Your task to perform on an android device: Open Android settings Image 0: 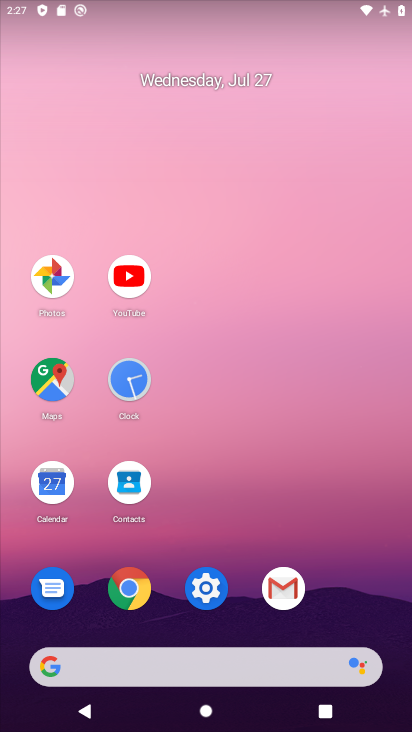
Step 0: click (200, 593)
Your task to perform on an android device: Open Android settings Image 1: 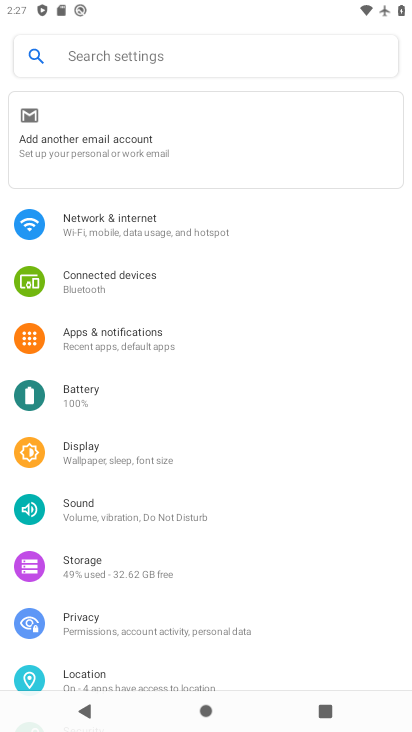
Step 1: drag from (281, 623) to (283, 146)
Your task to perform on an android device: Open Android settings Image 2: 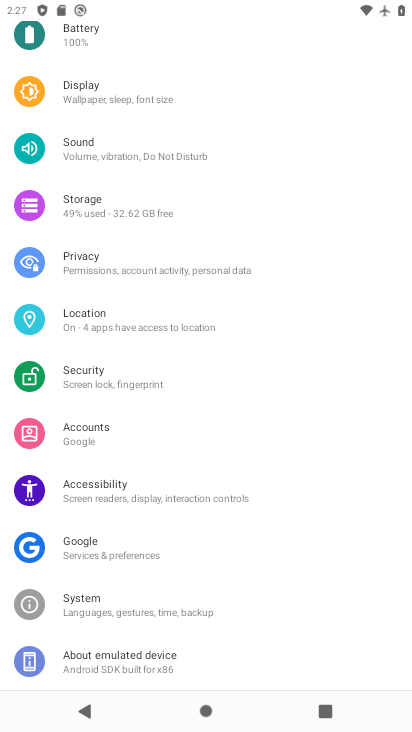
Step 2: click (131, 660)
Your task to perform on an android device: Open Android settings Image 3: 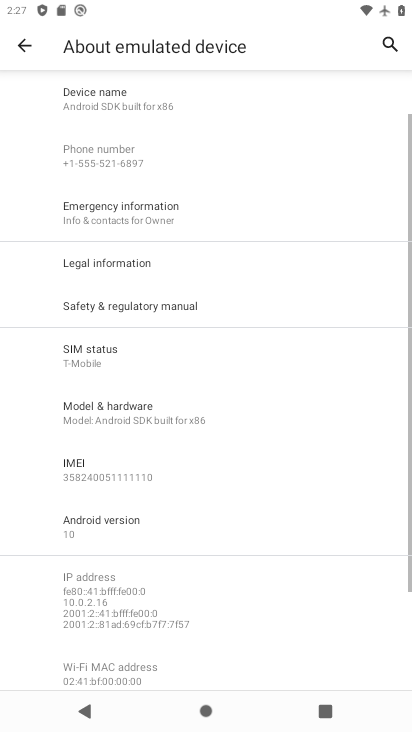
Step 3: task complete